Your task to perform on an android device: Search for seafood restaurants on Google Maps Image 0: 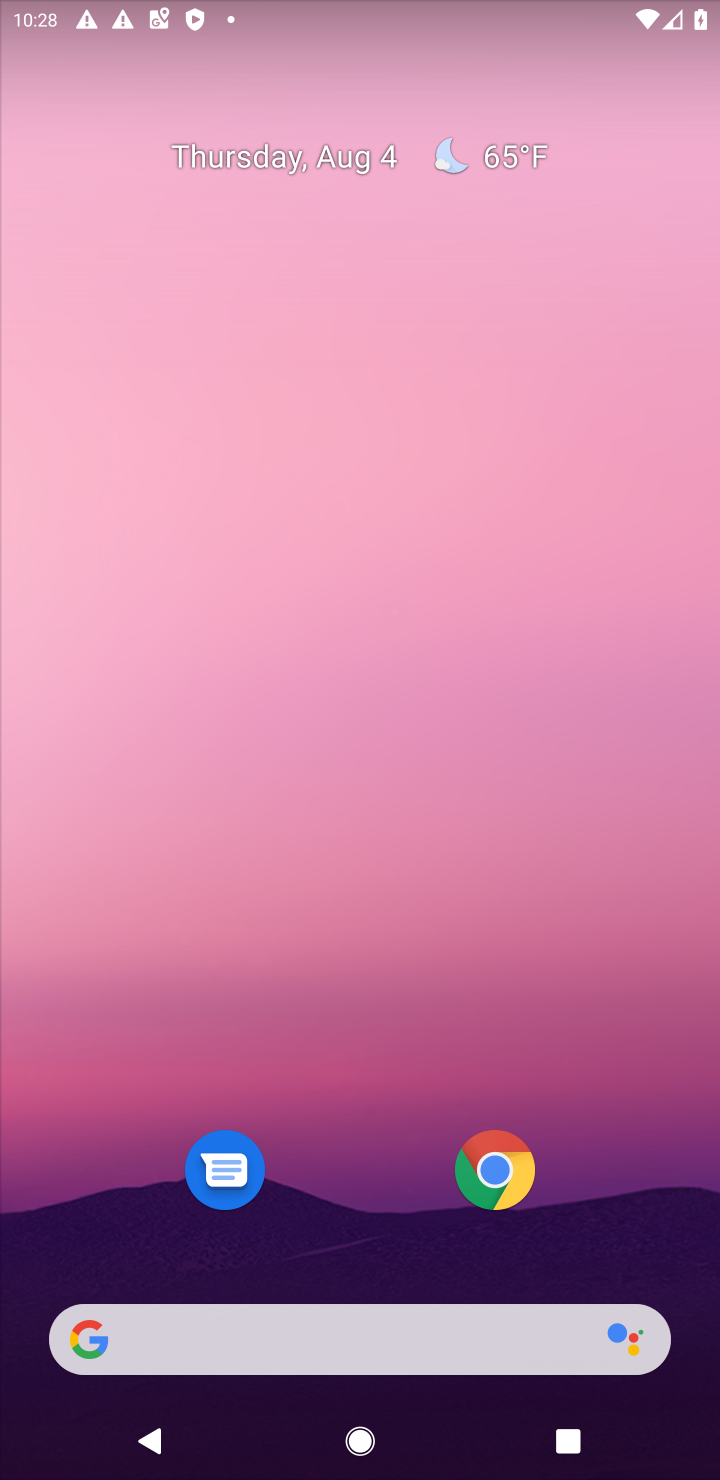
Step 0: drag from (386, 517) to (372, 292)
Your task to perform on an android device: Search for seafood restaurants on Google Maps Image 1: 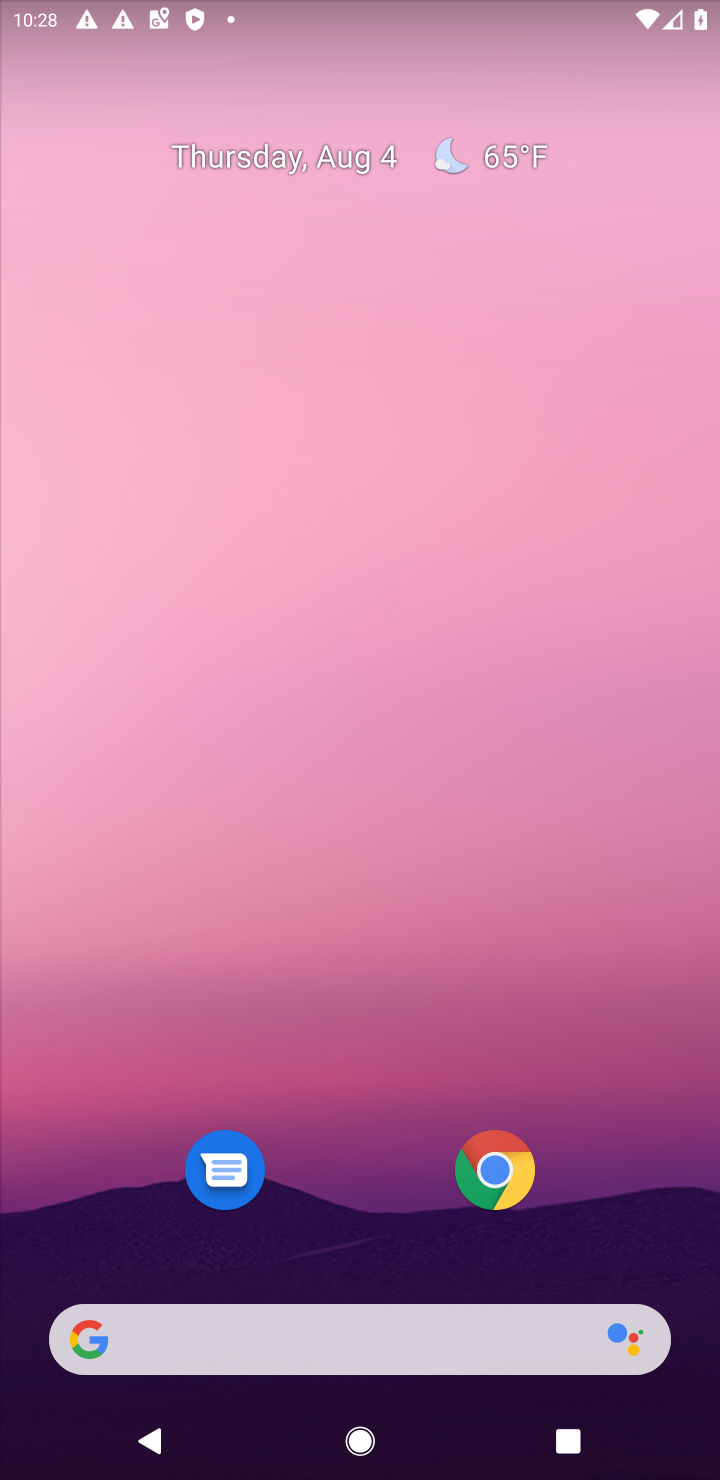
Step 1: drag from (299, 696) to (379, 16)
Your task to perform on an android device: Search for seafood restaurants on Google Maps Image 2: 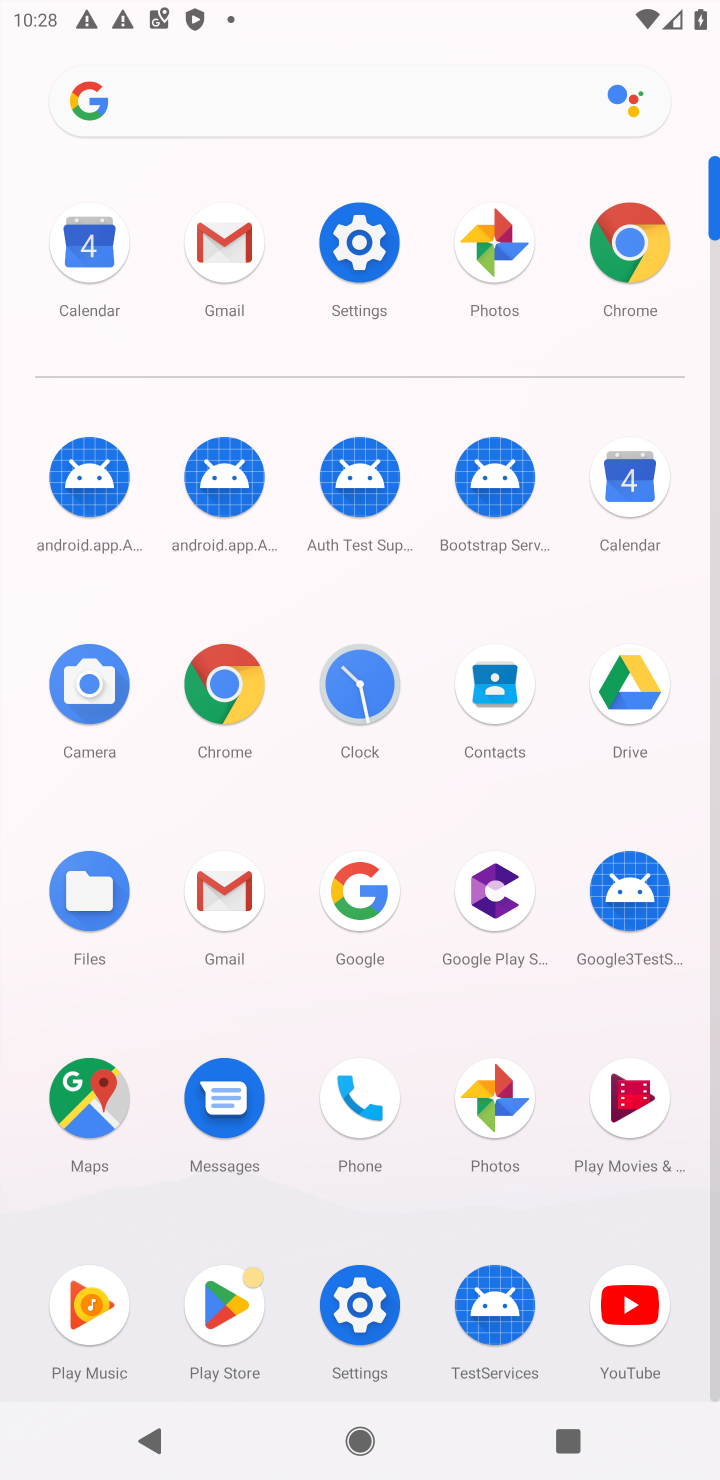
Step 2: click (96, 1086)
Your task to perform on an android device: Search for seafood restaurants on Google Maps Image 3: 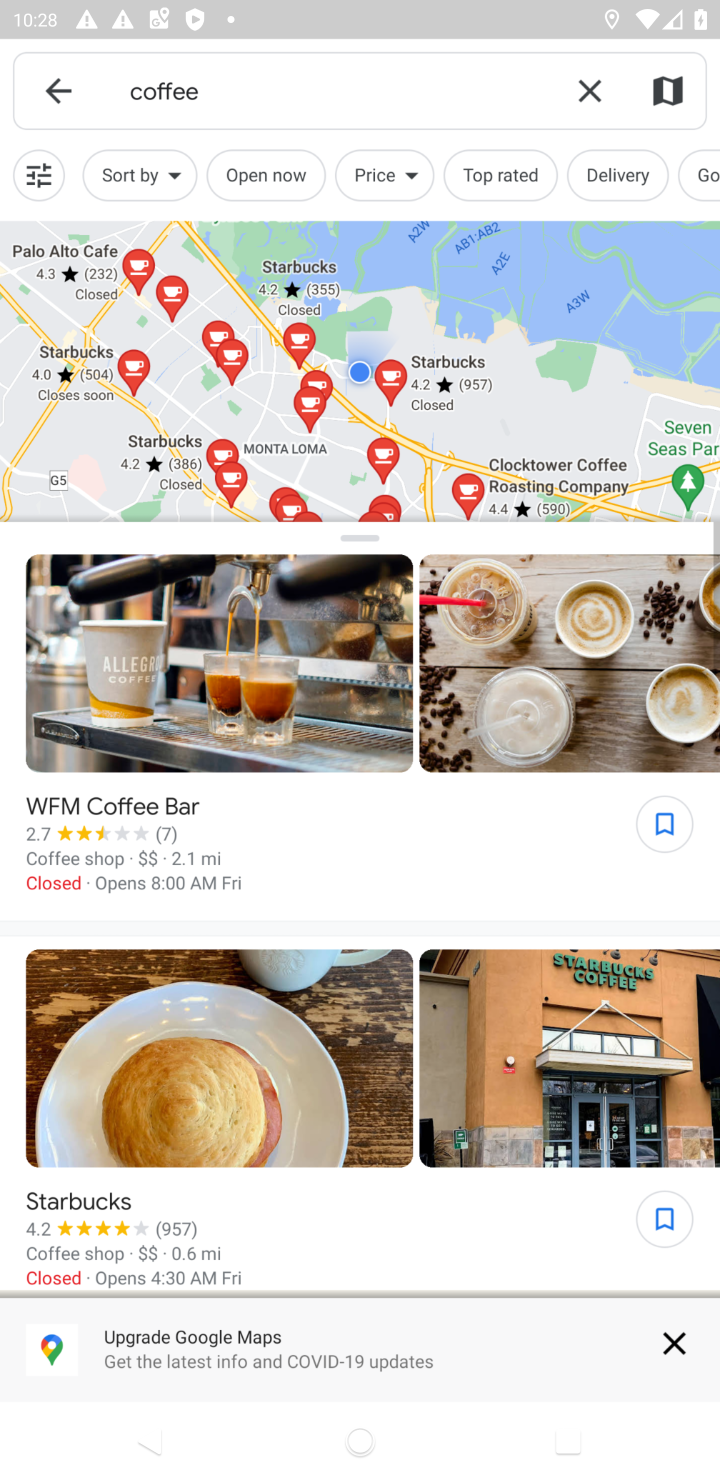
Step 3: click (601, 72)
Your task to perform on an android device: Search for seafood restaurants on Google Maps Image 4: 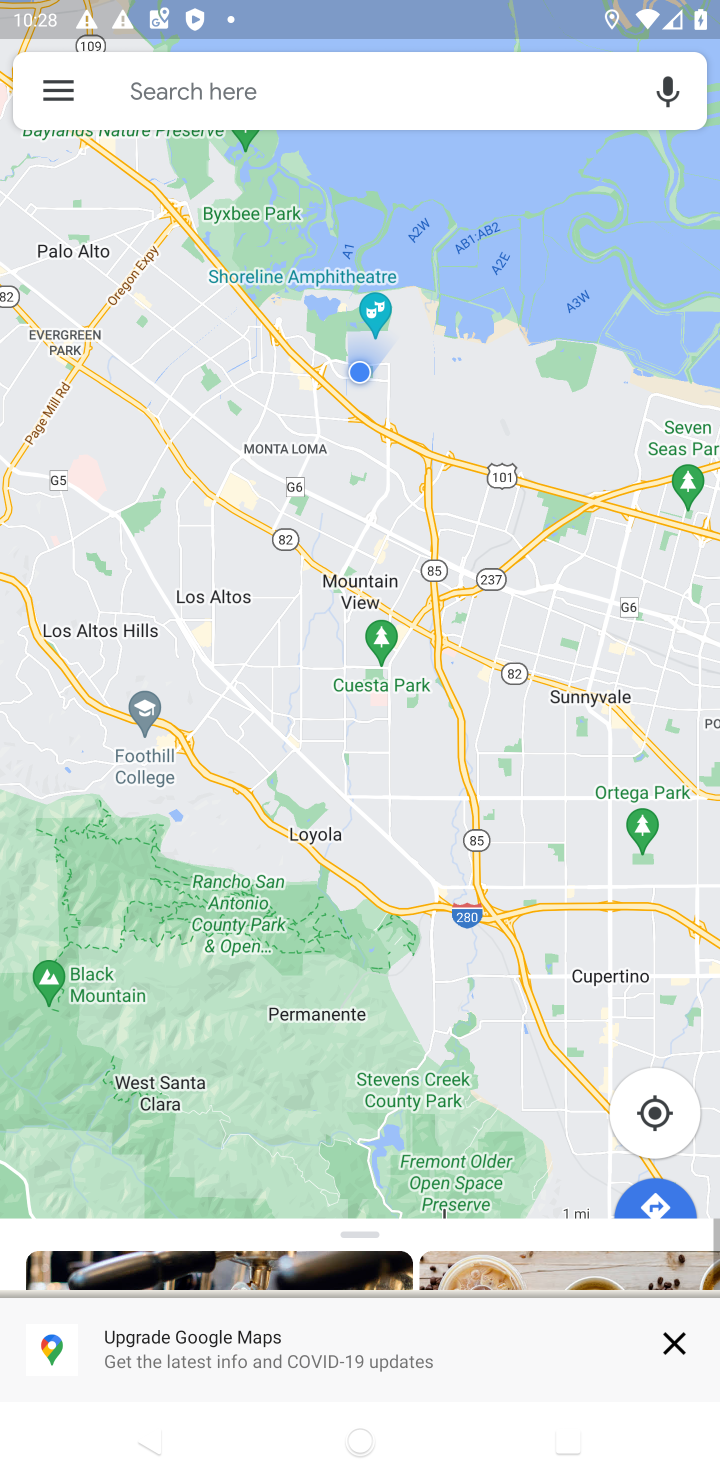
Step 4: click (574, 82)
Your task to perform on an android device: Search for seafood restaurants on Google Maps Image 5: 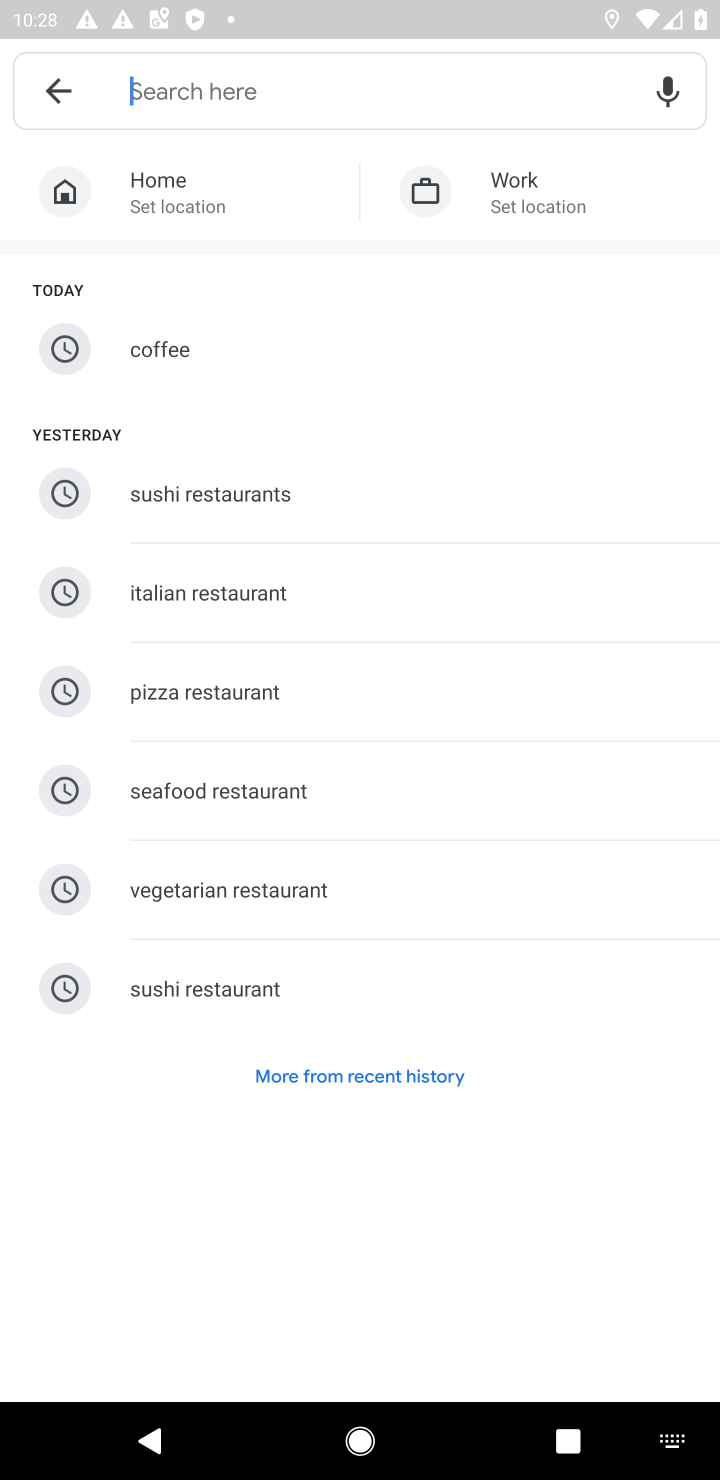
Step 5: click (236, 788)
Your task to perform on an android device: Search for seafood restaurants on Google Maps Image 6: 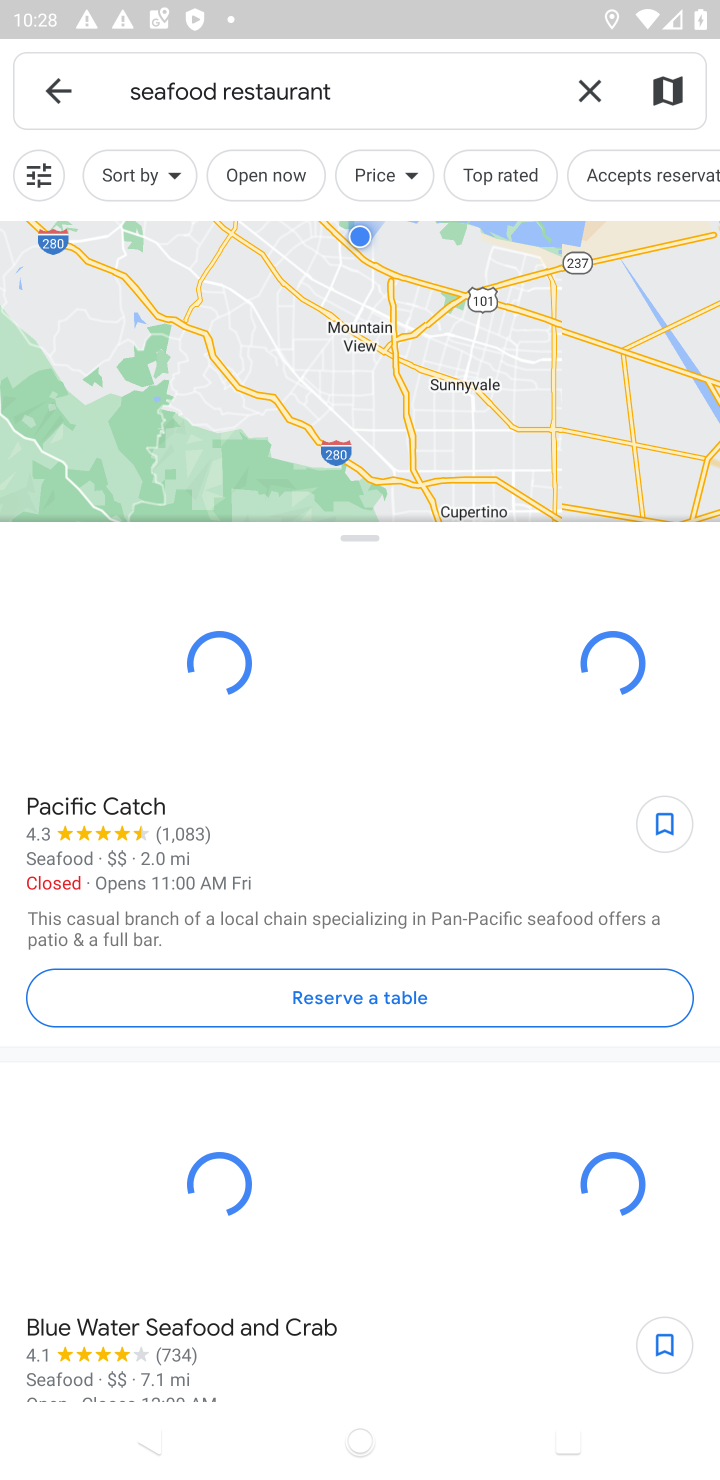
Step 6: task complete